Your task to perform on an android device: How old is the earth? Image 0: 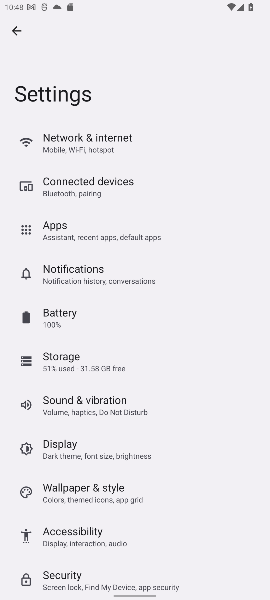
Step 0: press home button
Your task to perform on an android device: How old is the earth? Image 1: 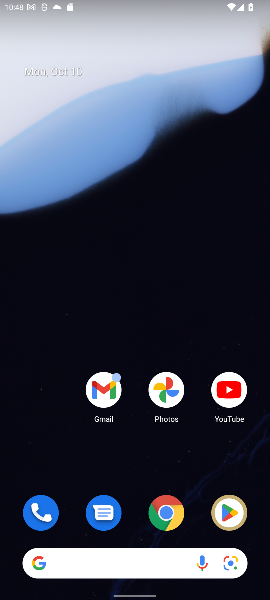
Step 1: click (123, 563)
Your task to perform on an android device: How old is the earth? Image 2: 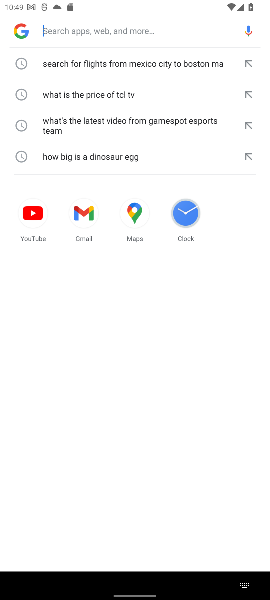
Step 2: type "How old is the earth?"
Your task to perform on an android device: How old is the earth? Image 3: 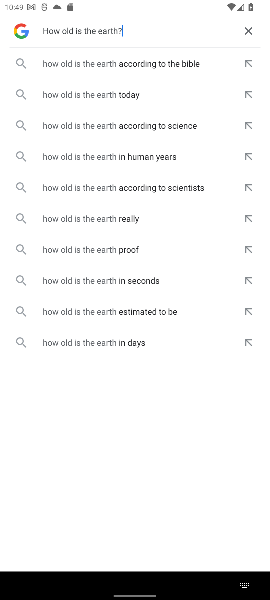
Step 3: click (114, 97)
Your task to perform on an android device: How old is the earth? Image 4: 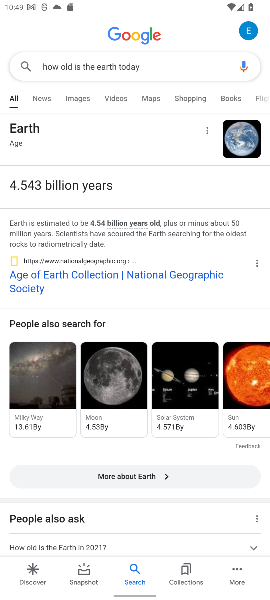
Step 4: task complete